Your task to perform on an android device: remove spam from my inbox in the gmail app Image 0: 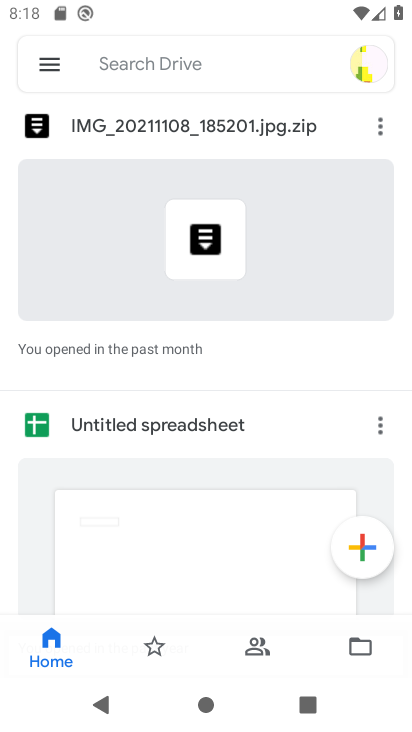
Step 0: click (206, 713)
Your task to perform on an android device: remove spam from my inbox in the gmail app Image 1: 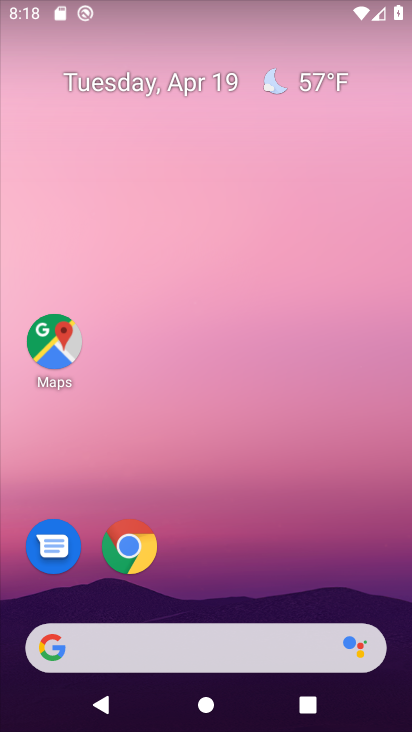
Step 1: drag from (238, 599) to (272, 184)
Your task to perform on an android device: remove spam from my inbox in the gmail app Image 2: 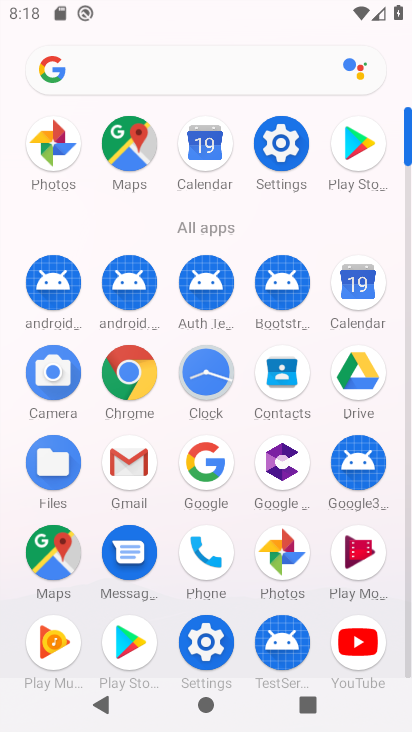
Step 2: click (133, 463)
Your task to perform on an android device: remove spam from my inbox in the gmail app Image 3: 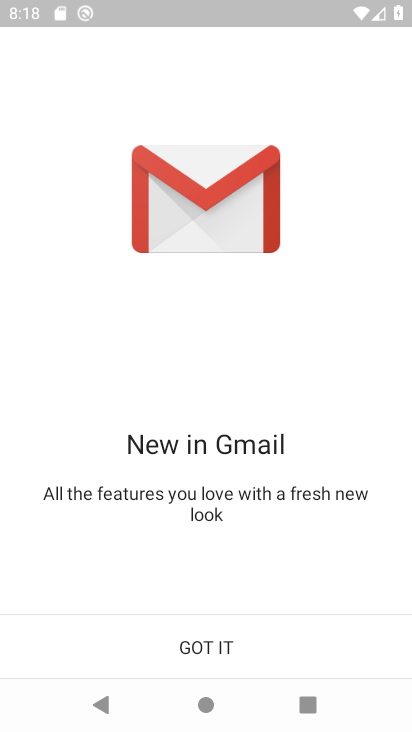
Step 3: click (228, 642)
Your task to perform on an android device: remove spam from my inbox in the gmail app Image 4: 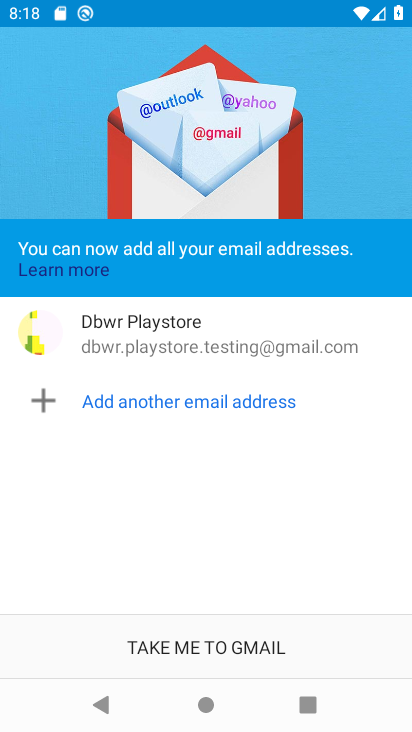
Step 4: click (228, 642)
Your task to perform on an android device: remove spam from my inbox in the gmail app Image 5: 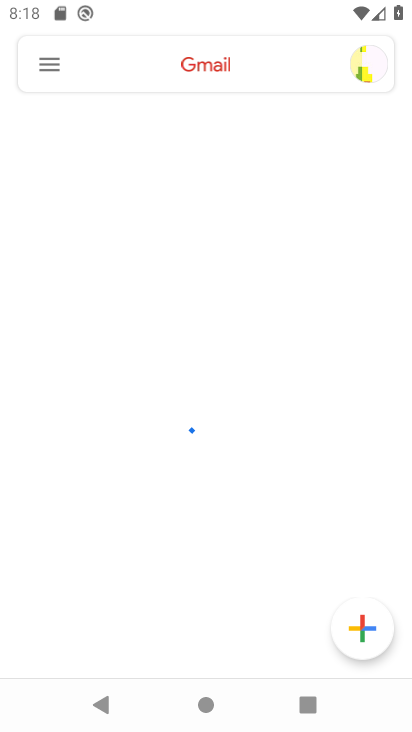
Step 5: click (56, 73)
Your task to perform on an android device: remove spam from my inbox in the gmail app Image 6: 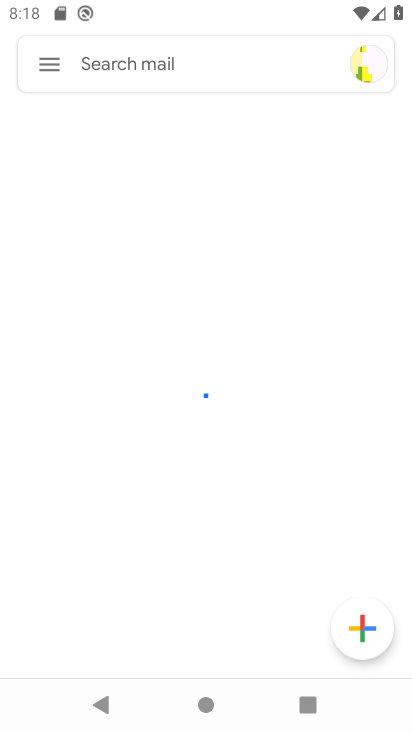
Step 6: click (21, 75)
Your task to perform on an android device: remove spam from my inbox in the gmail app Image 7: 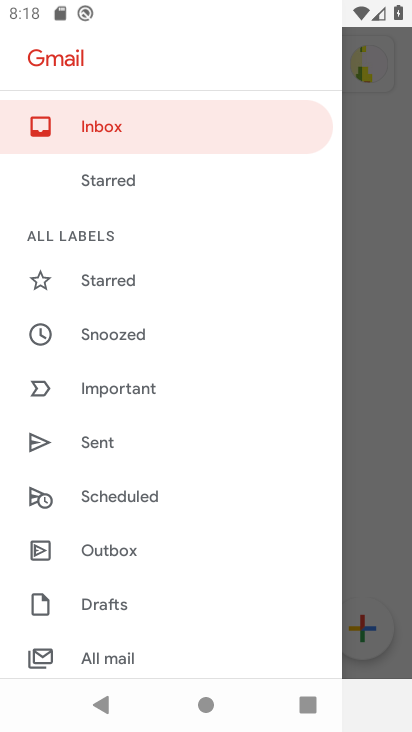
Step 7: drag from (96, 631) to (200, 196)
Your task to perform on an android device: remove spam from my inbox in the gmail app Image 8: 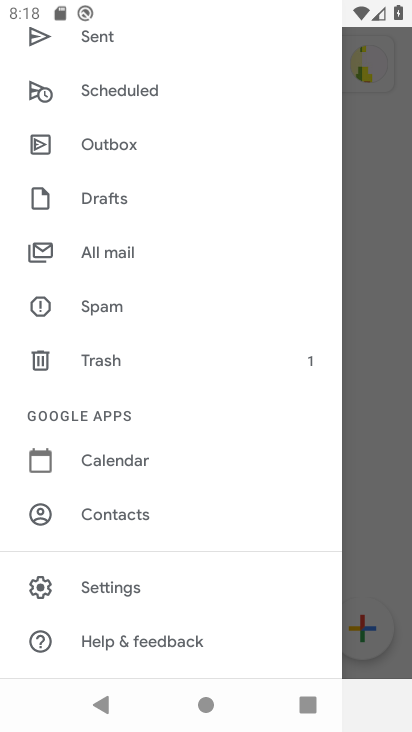
Step 8: click (87, 302)
Your task to perform on an android device: remove spam from my inbox in the gmail app Image 9: 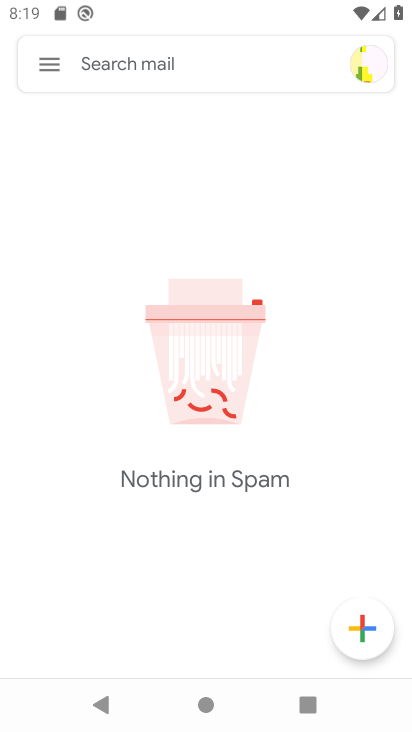
Step 9: task complete